Your task to perform on an android device: Open Google Image 0: 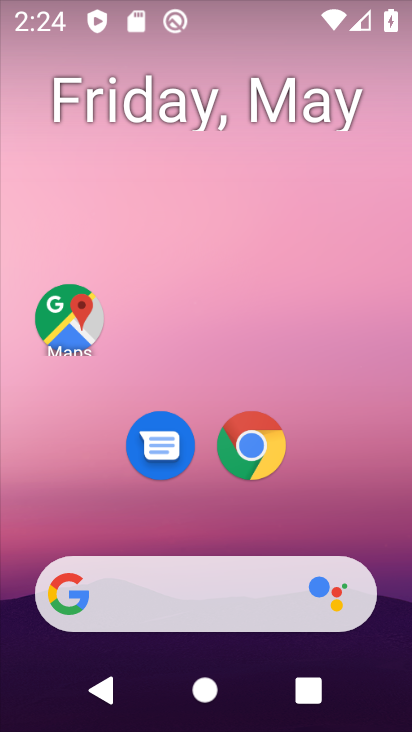
Step 0: press home button
Your task to perform on an android device: Open Google Image 1: 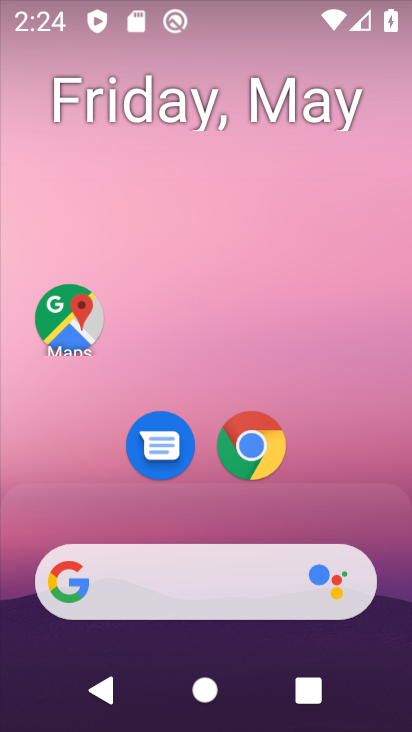
Step 1: drag from (210, 538) to (229, 18)
Your task to perform on an android device: Open Google Image 2: 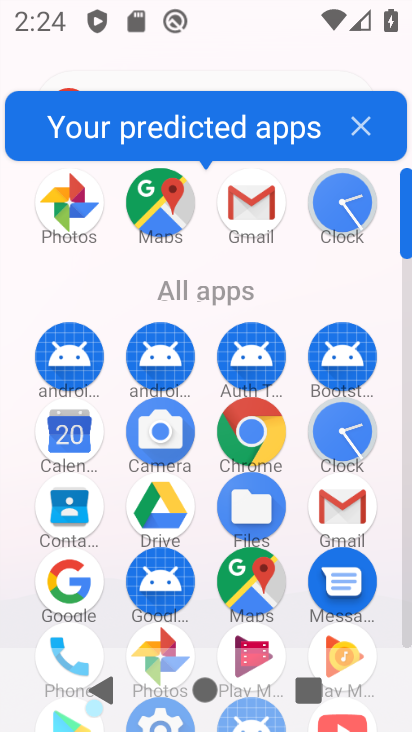
Step 2: click (75, 576)
Your task to perform on an android device: Open Google Image 3: 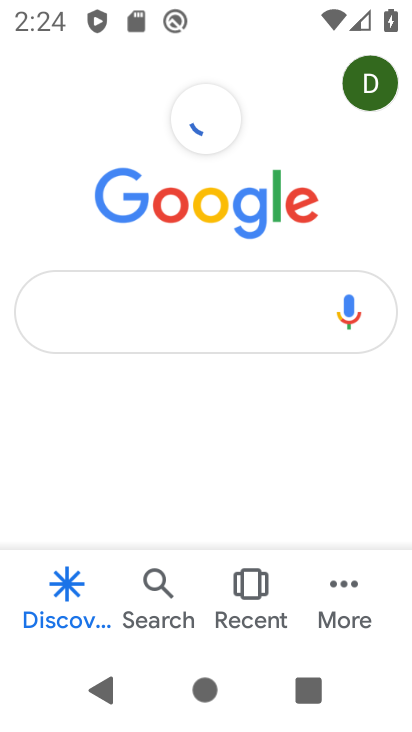
Step 3: task complete